Your task to perform on an android device: allow cookies in the chrome app Image 0: 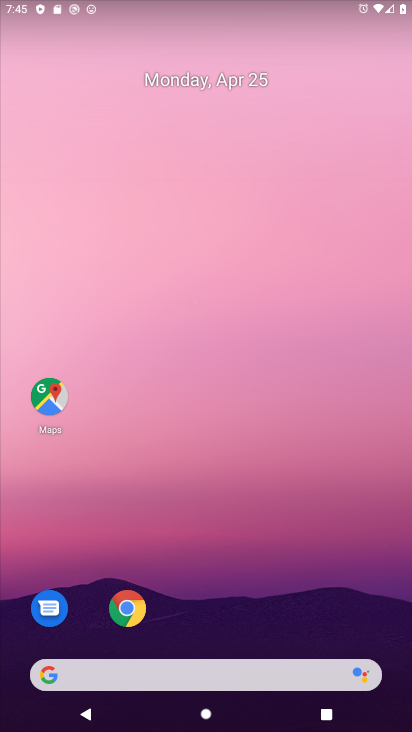
Step 0: click (134, 605)
Your task to perform on an android device: allow cookies in the chrome app Image 1: 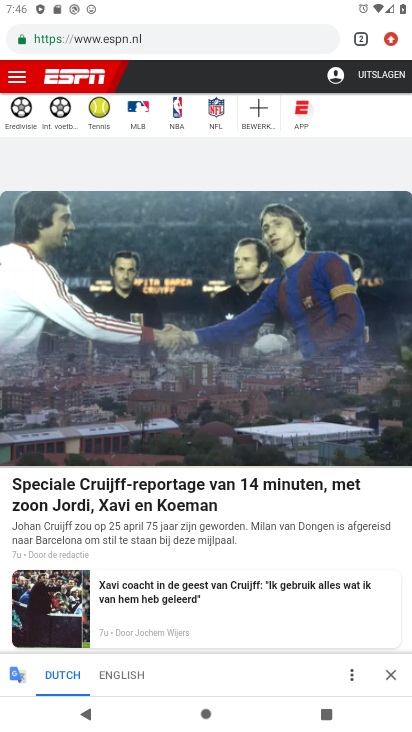
Step 1: click (393, 45)
Your task to perform on an android device: allow cookies in the chrome app Image 2: 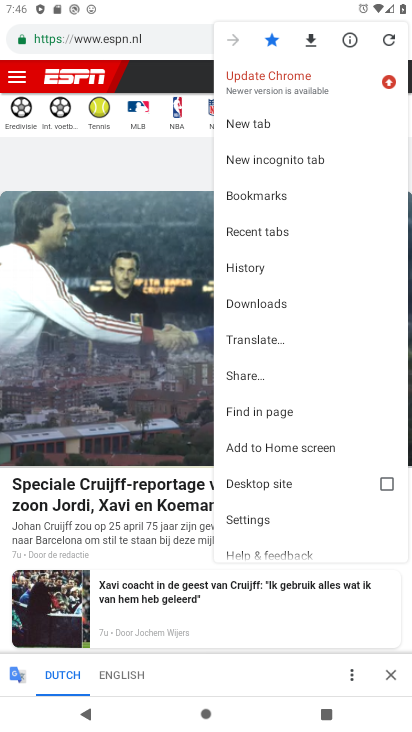
Step 2: click (269, 513)
Your task to perform on an android device: allow cookies in the chrome app Image 3: 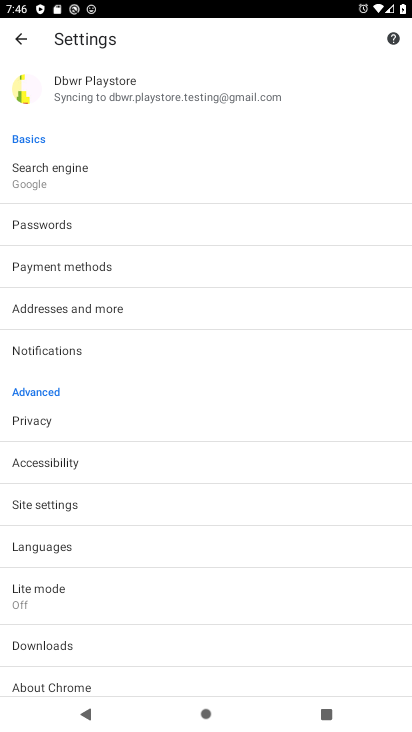
Step 3: click (81, 513)
Your task to perform on an android device: allow cookies in the chrome app Image 4: 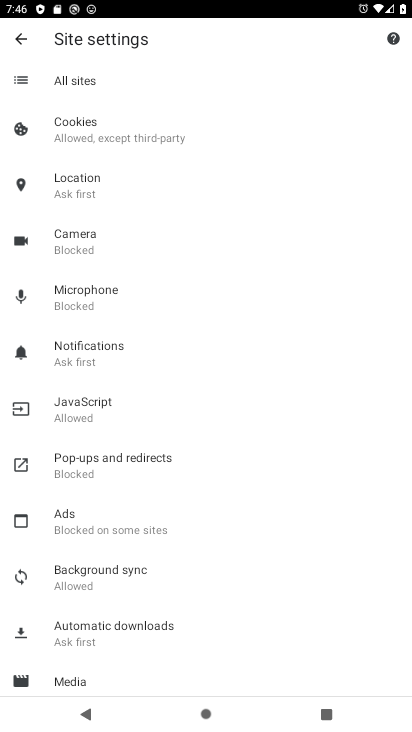
Step 4: click (78, 134)
Your task to perform on an android device: allow cookies in the chrome app Image 5: 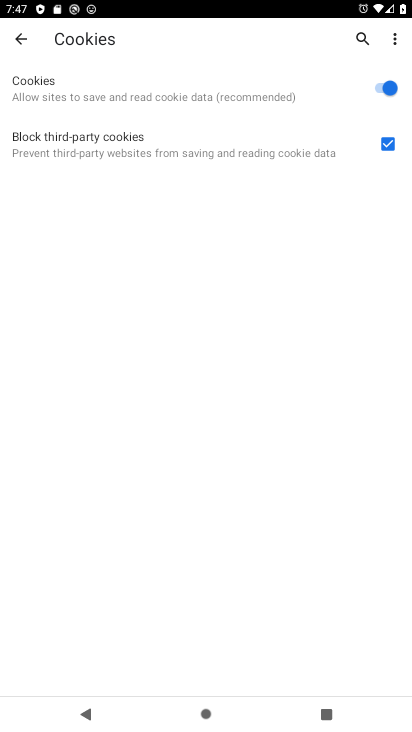
Step 5: task complete